Your task to perform on an android device: When is my next appointment? Image 0: 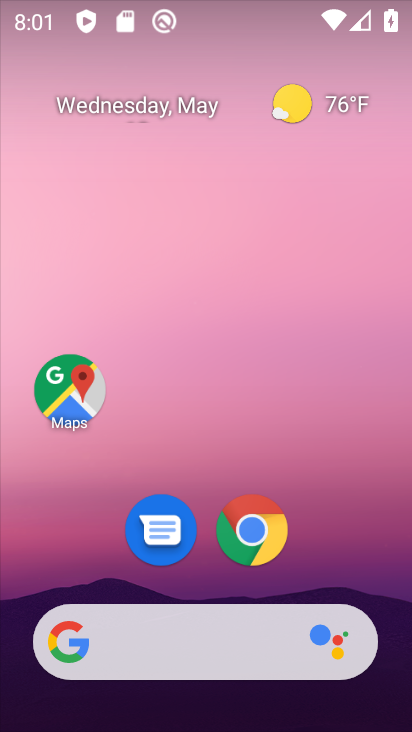
Step 0: drag from (340, 547) to (312, 135)
Your task to perform on an android device: When is my next appointment? Image 1: 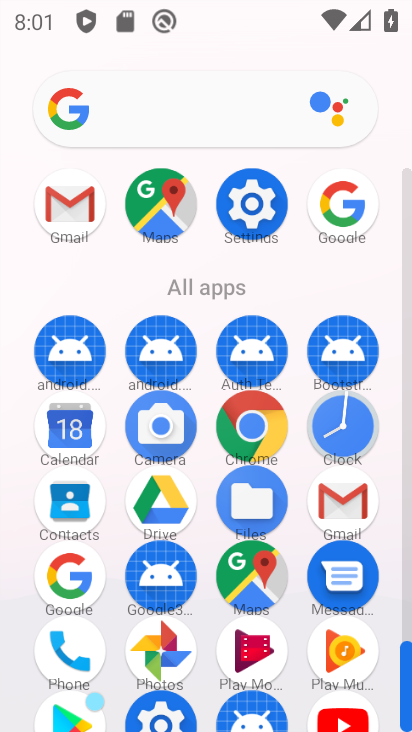
Step 1: click (62, 432)
Your task to perform on an android device: When is my next appointment? Image 2: 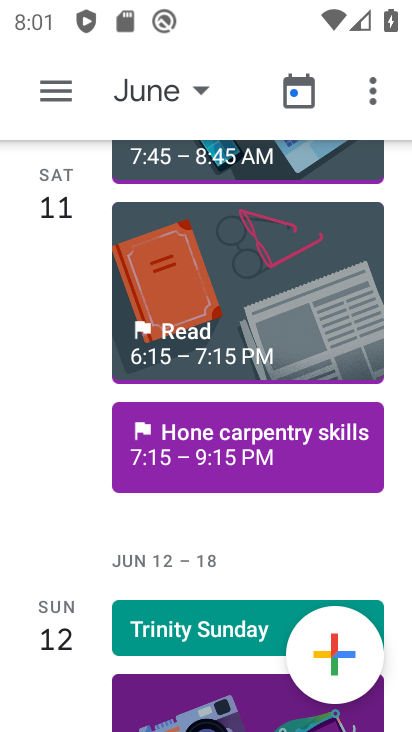
Step 2: drag from (92, 177) to (60, 640)
Your task to perform on an android device: When is my next appointment? Image 3: 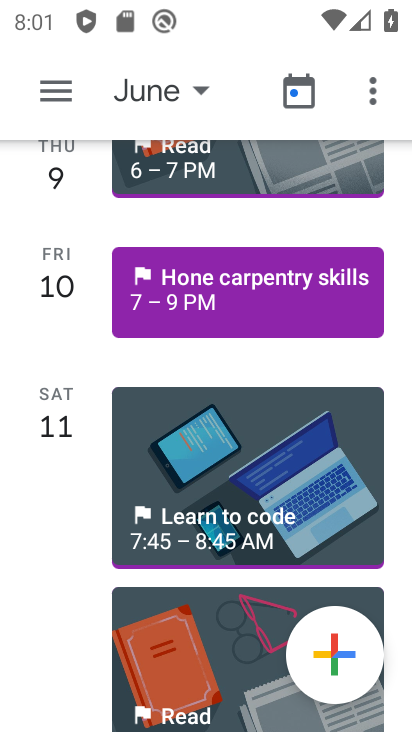
Step 3: drag from (85, 211) to (61, 615)
Your task to perform on an android device: When is my next appointment? Image 4: 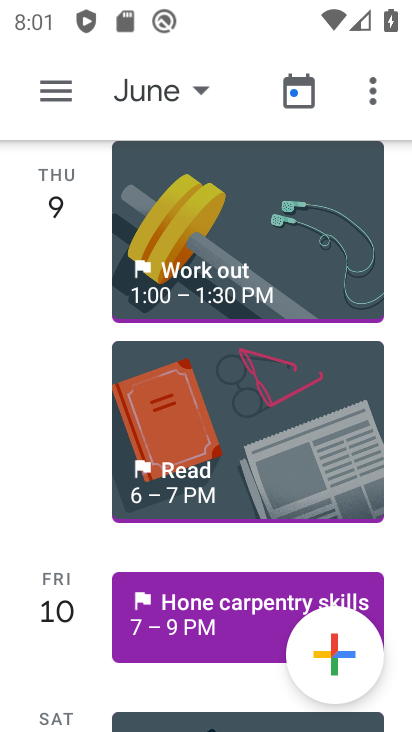
Step 4: click (166, 89)
Your task to perform on an android device: When is my next appointment? Image 5: 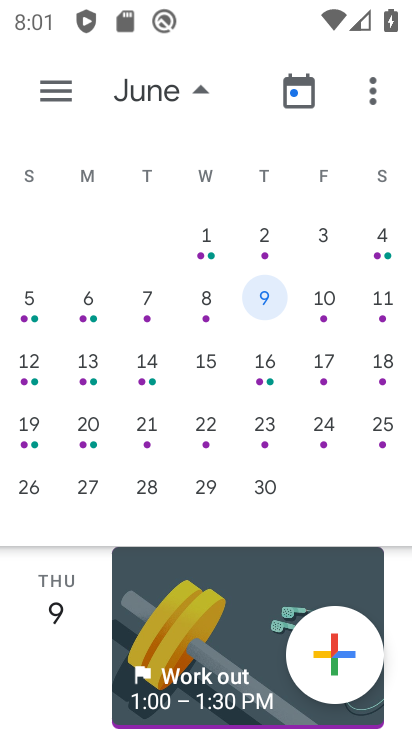
Step 5: drag from (123, 242) to (372, 259)
Your task to perform on an android device: When is my next appointment? Image 6: 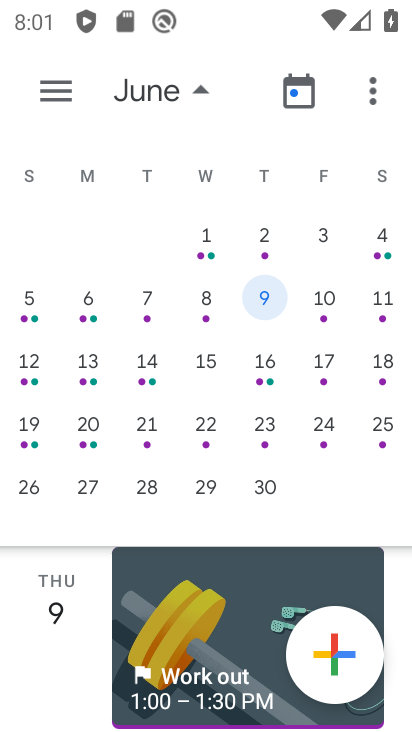
Step 6: drag from (52, 714) to (140, 346)
Your task to perform on an android device: When is my next appointment? Image 7: 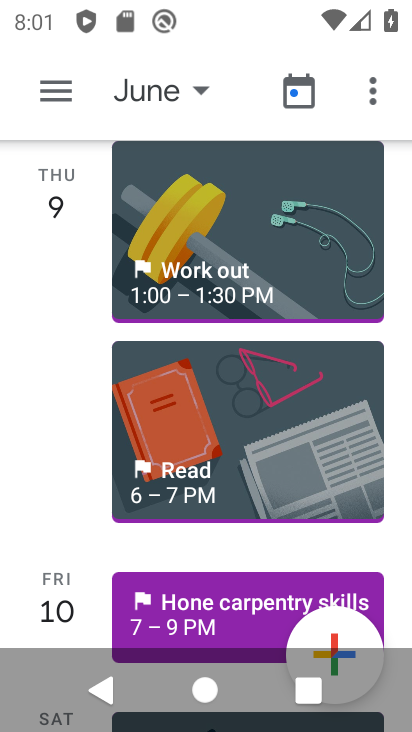
Step 7: drag from (96, 596) to (118, 345)
Your task to perform on an android device: When is my next appointment? Image 8: 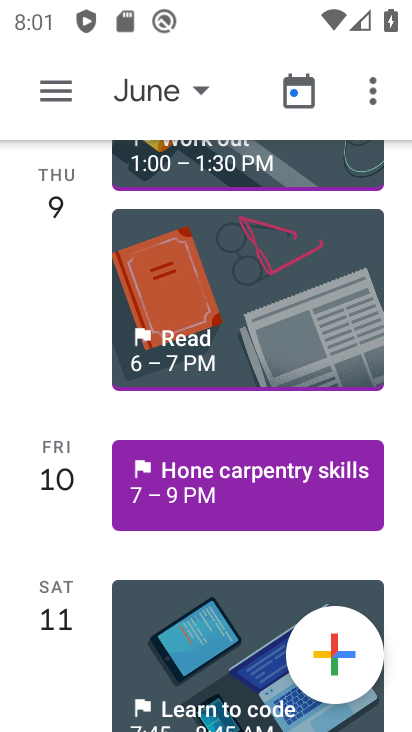
Step 8: drag from (81, 593) to (101, 294)
Your task to perform on an android device: When is my next appointment? Image 9: 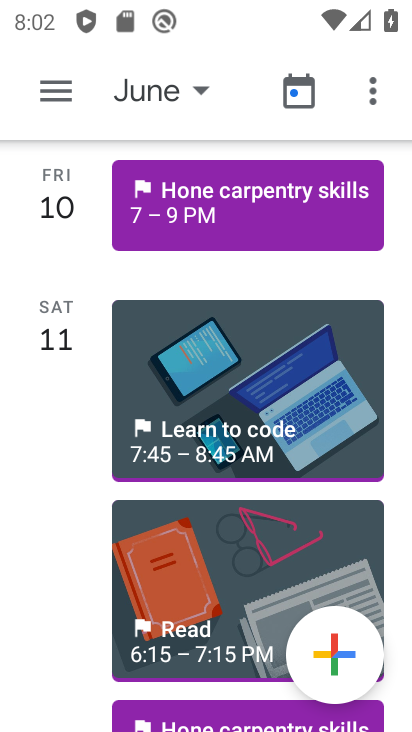
Step 9: drag from (74, 595) to (82, 293)
Your task to perform on an android device: When is my next appointment? Image 10: 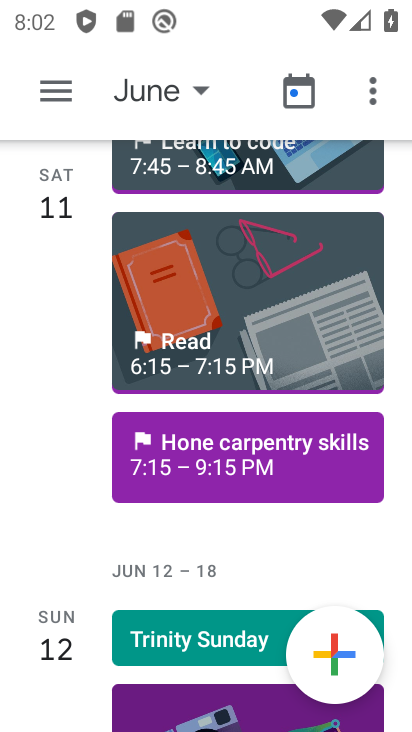
Step 10: drag from (77, 574) to (117, 275)
Your task to perform on an android device: When is my next appointment? Image 11: 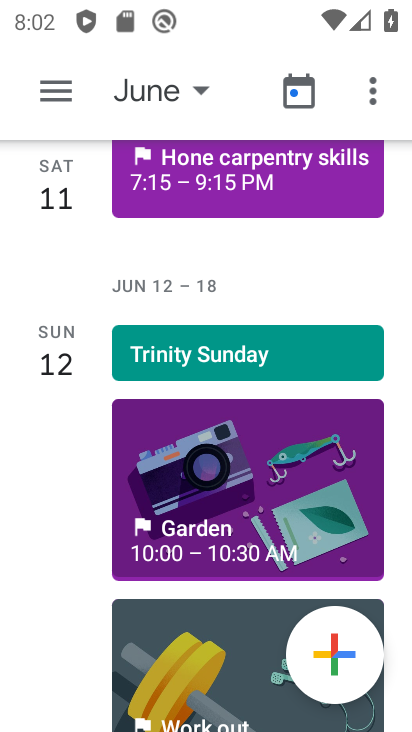
Step 11: drag from (79, 595) to (123, 293)
Your task to perform on an android device: When is my next appointment? Image 12: 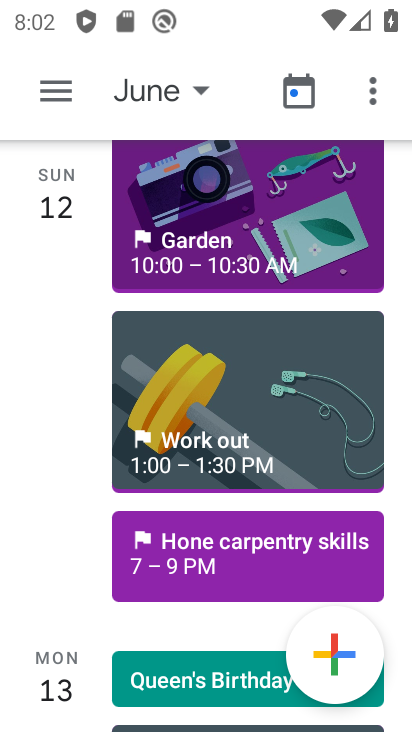
Step 12: drag from (83, 607) to (123, 268)
Your task to perform on an android device: When is my next appointment? Image 13: 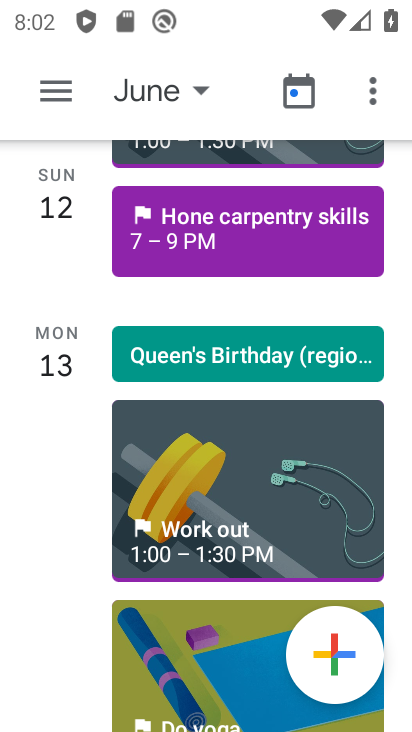
Step 13: drag from (103, 548) to (132, 276)
Your task to perform on an android device: When is my next appointment? Image 14: 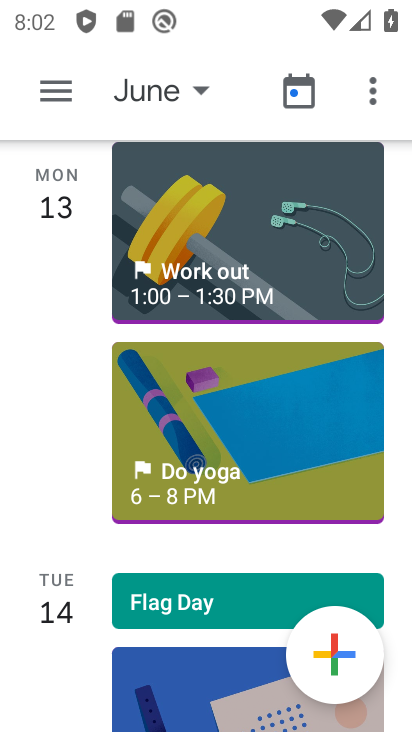
Step 14: drag from (80, 594) to (104, 259)
Your task to perform on an android device: When is my next appointment? Image 15: 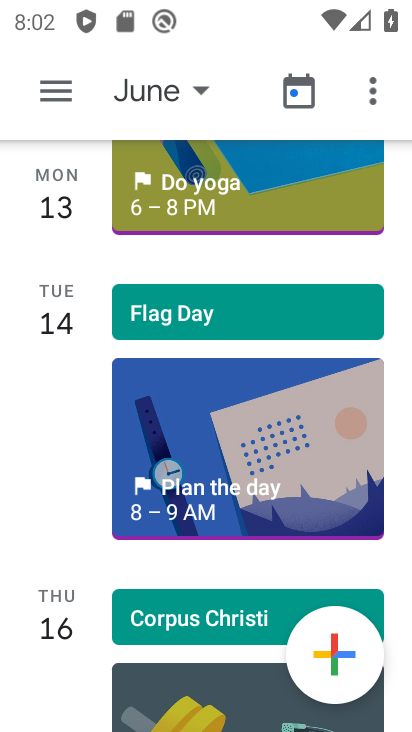
Step 15: drag from (98, 574) to (174, 268)
Your task to perform on an android device: When is my next appointment? Image 16: 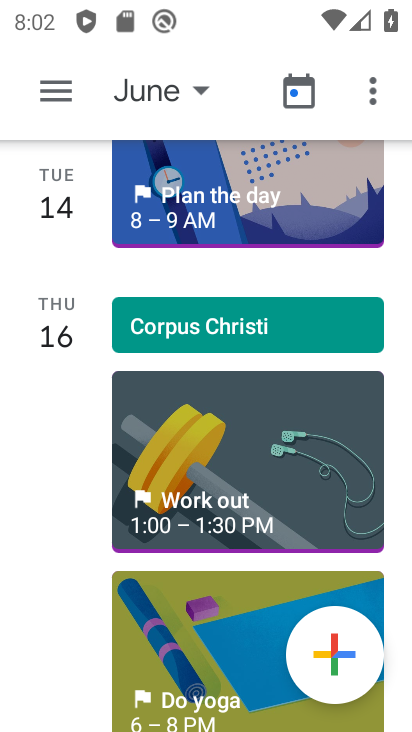
Step 16: drag from (107, 617) to (181, 280)
Your task to perform on an android device: When is my next appointment? Image 17: 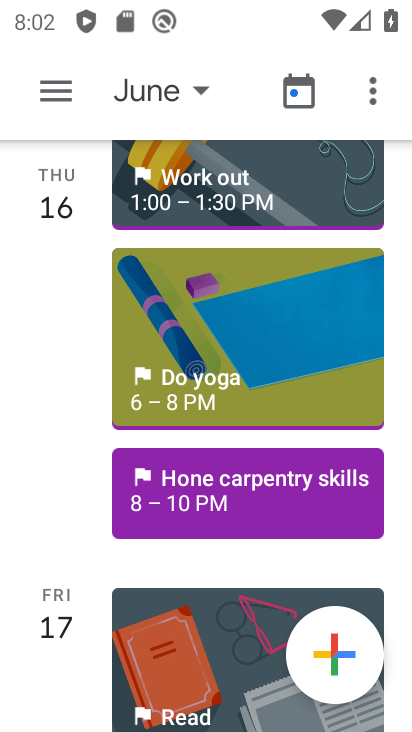
Step 17: drag from (86, 699) to (113, 333)
Your task to perform on an android device: When is my next appointment? Image 18: 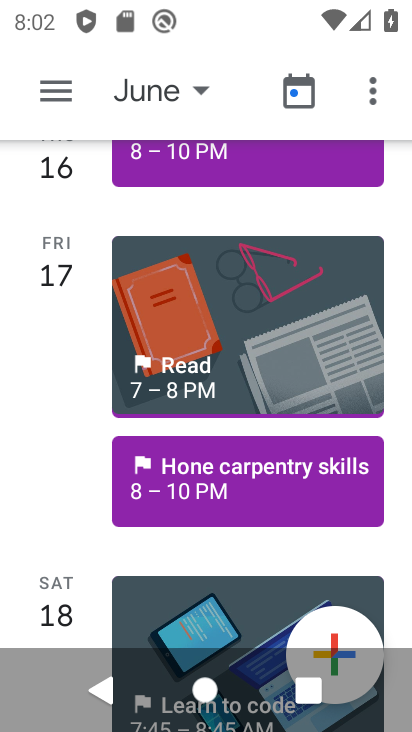
Step 18: drag from (91, 587) to (101, 320)
Your task to perform on an android device: When is my next appointment? Image 19: 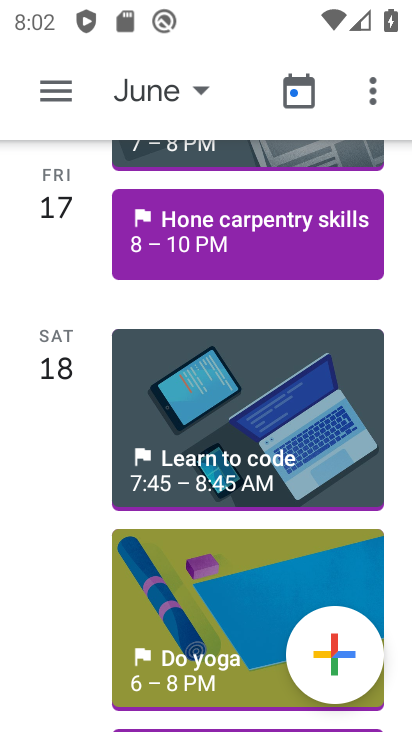
Step 19: click (145, 92)
Your task to perform on an android device: When is my next appointment? Image 20: 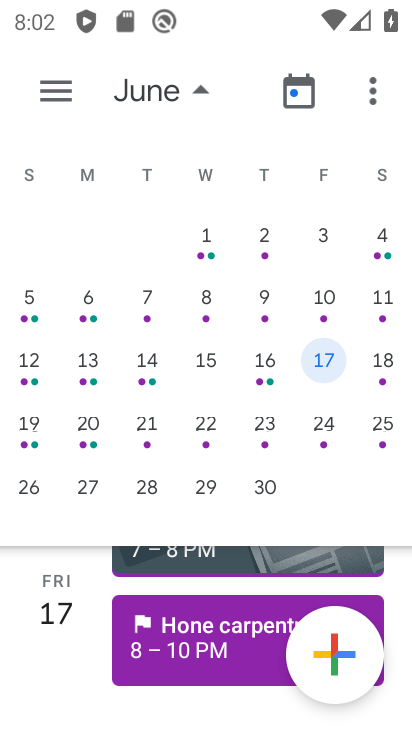
Step 20: drag from (147, 223) to (407, 218)
Your task to perform on an android device: When is my next appointment? Image 21: 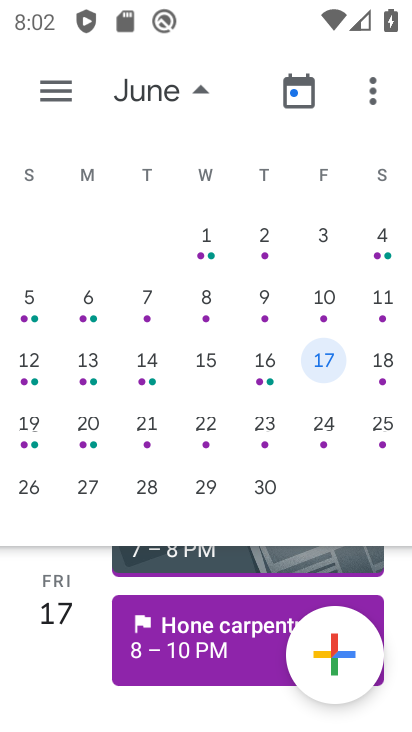
Step 21: drag from (121, 254) to (407, 276)
Your task to perform on an android device: When is my next appointment? Image 22: 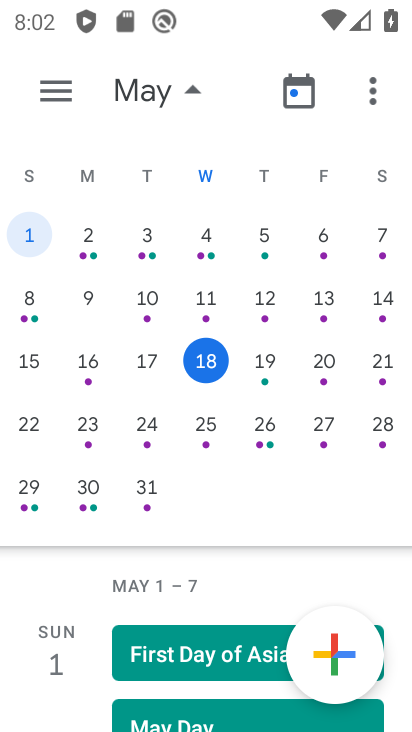
Step 22: click (267, 361)
Your task to perform on an android device: When is my next appointment? Image 23: 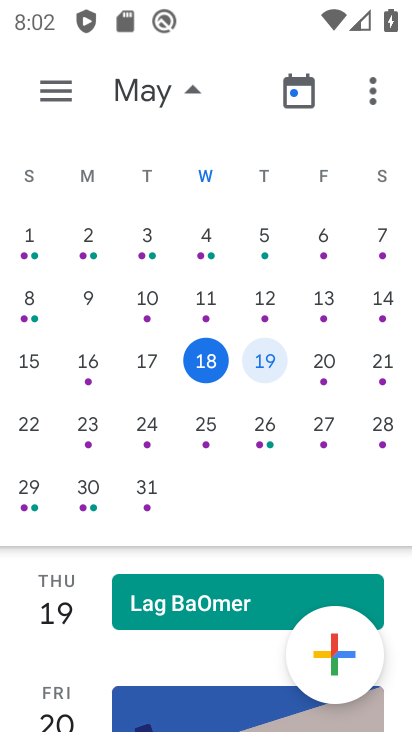
Step 23: task complete